Your task to perform on an android device: Open settings Image 0: 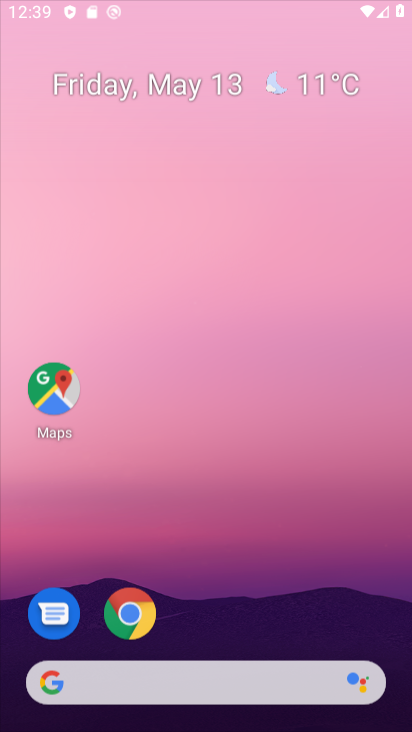
Step 0: click (310, 313)
Your task to perform on an android device: Open settings Image 1: 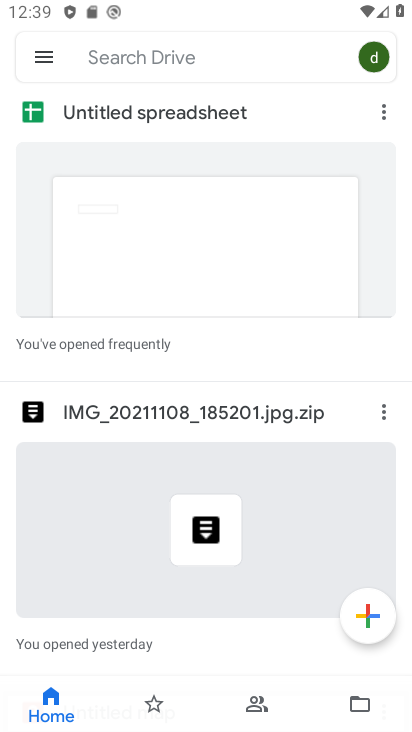
Step 1: press home button
Your task to perform on an android device: Open settings Image 2: 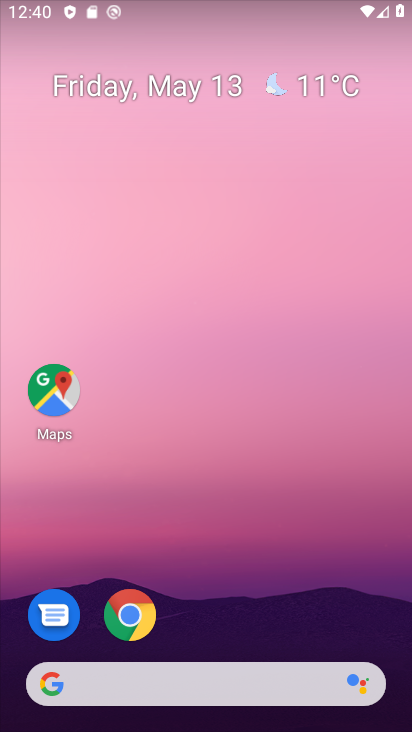
Step 2: drag from (202, 609) to (293, 47)
Your task to perform on an android device: Open settings Image 3: 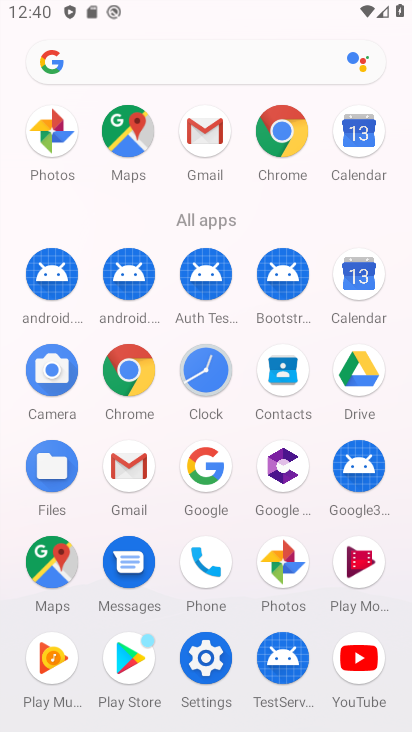
Step 3: click (211, 668)
Your task to perform on an android device: Open settings Image 4: 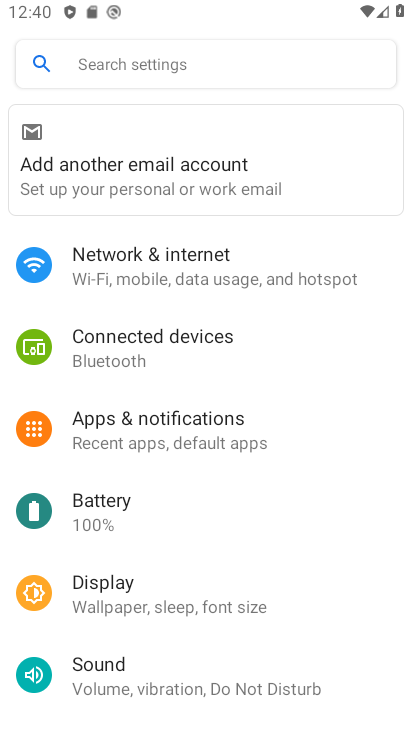
Step 4: task complete